Your task to perform on an android device: change text size in settings app Image 0: 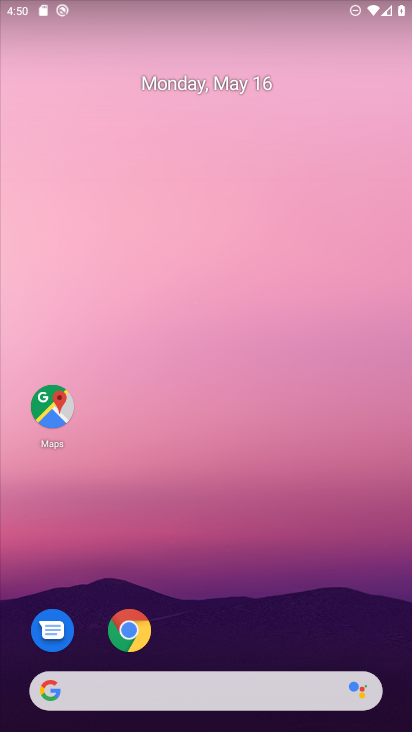
Step 0: press home button
Your task to perform on an android device: change text size in settings app Image 1: 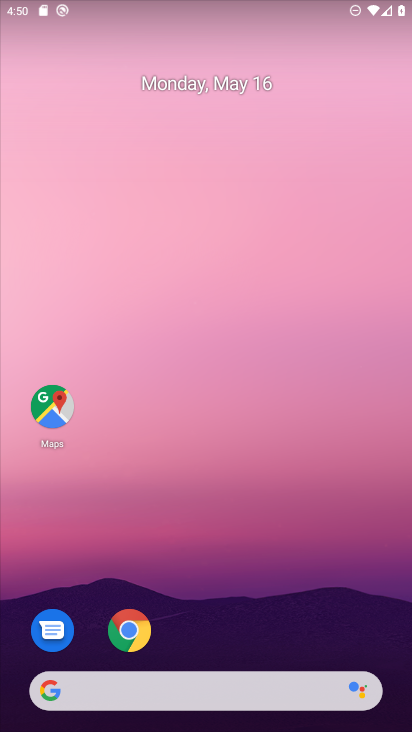
Step 1: drag from (255, 592) to (348, 54)
Your task to perform on an android device: change text size in settings app Image 2: 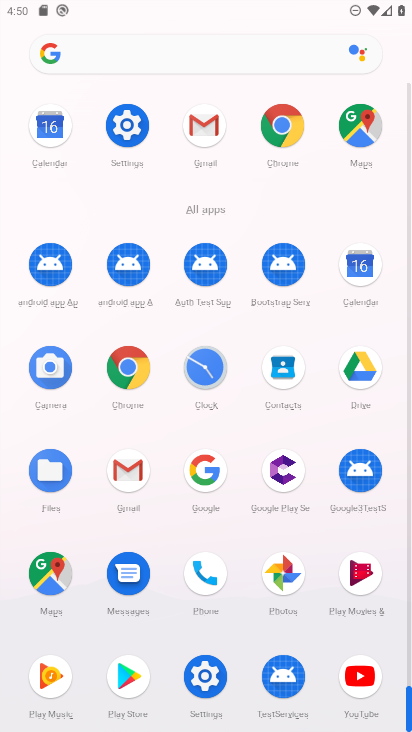
Step 2: click (198, 665)
Your task to perform on an android device: change text size in settings app Image 3: 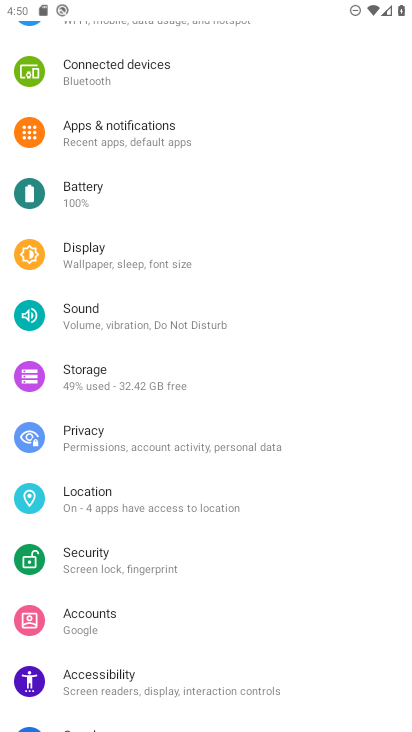
Step 3: click (83, 274)
Your task to perform on an android device: change text size in settings app Image 4: 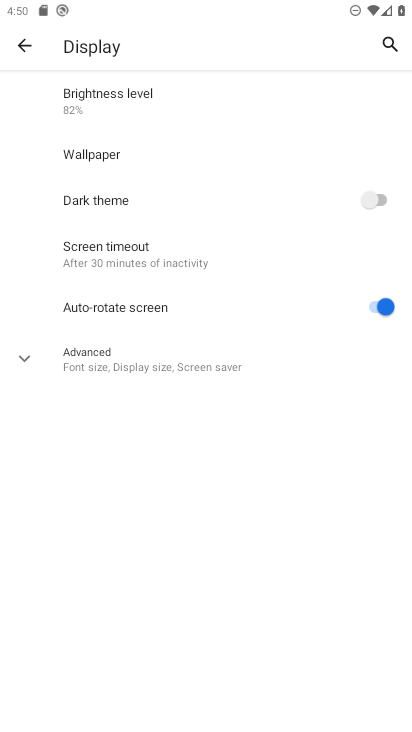
Step 4: click (104, 358)
Your task to perform on an android device: change text size in settings app Image 5: 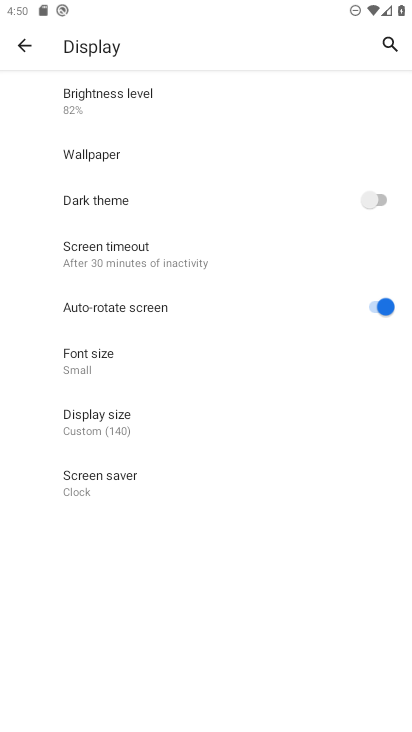
Step 5: click (104, 361)
Your task to perform on an android device: change text size in settings app Image 6: 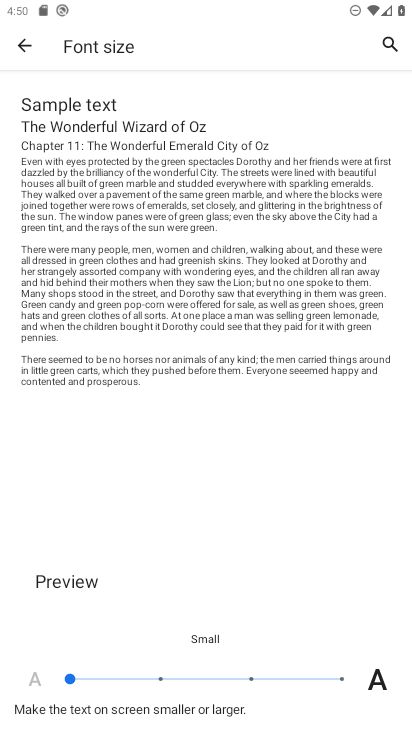
Step 6: click (385, 685)
Your task to perform on an android device: change text size in settings app Image 7: 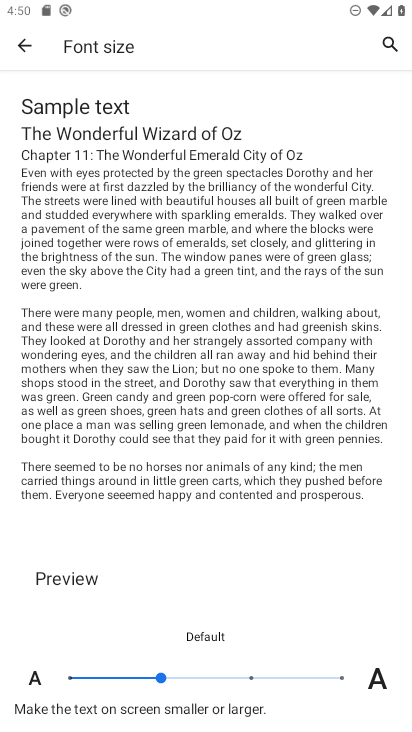
Step 7: task complete